Your task to perform on an android device: Search for pizza restaurants on Maps Image 0: 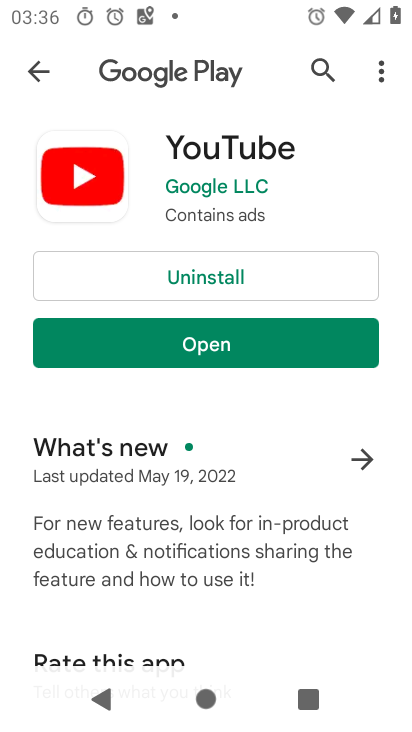
Step 0: press home button
Your task to perform on an android device: Search for pizza restaurants on Maps Image 1: 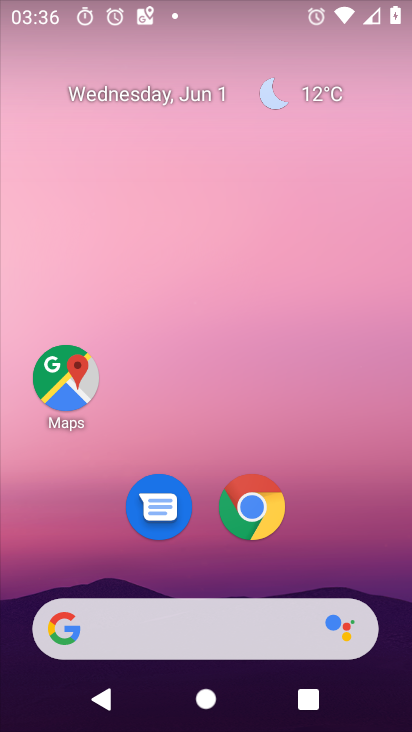
Step 1: click (67, 381)
Your task to perform on an android device: Search for pizza restaurants on Maps Image 2: 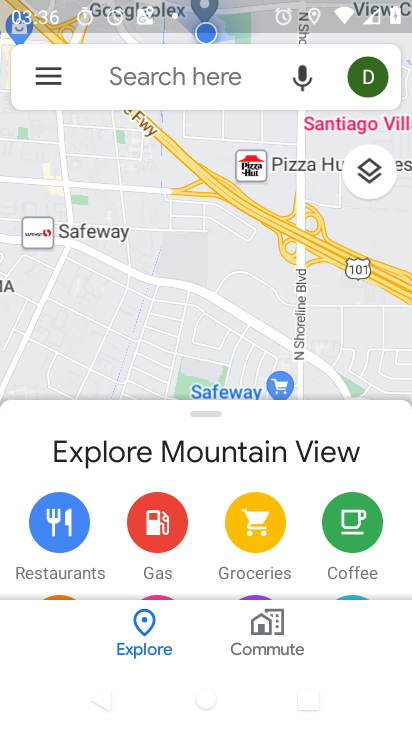
Step 2: click (124, 84)
Your task to perform on an android device: Search for pizza restaurants on Maps Image 3: 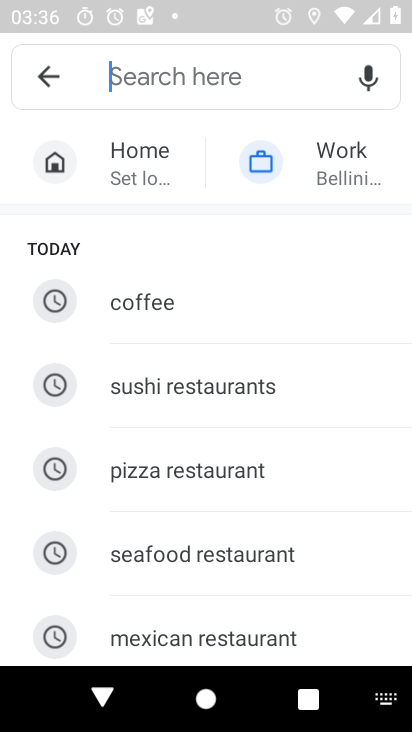
Step 3: type "pizza restaurants "
Your task to perform on an android device: Search for pizza restaurants on Maps Image 4: 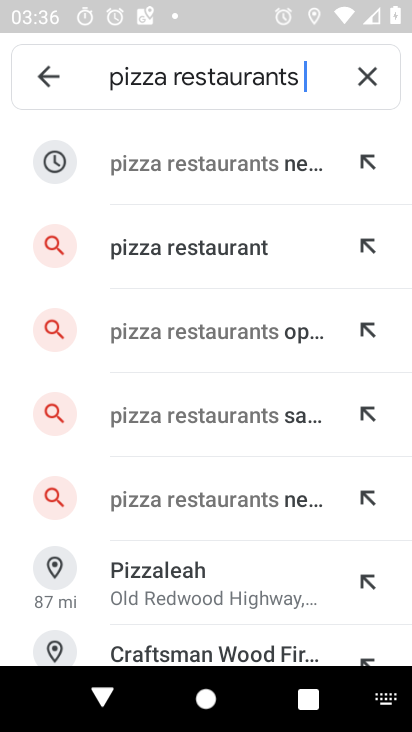
Step 4: click (195, 233)
Your task to perform on an android device: Search for pizza restaurants on Maps Image 5: 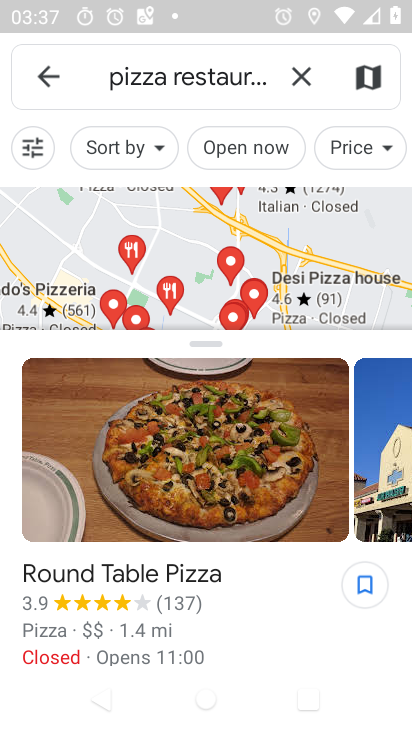
Step 5: task complete